Your task to perform on an android device: Open Yahoo.com Image 0: 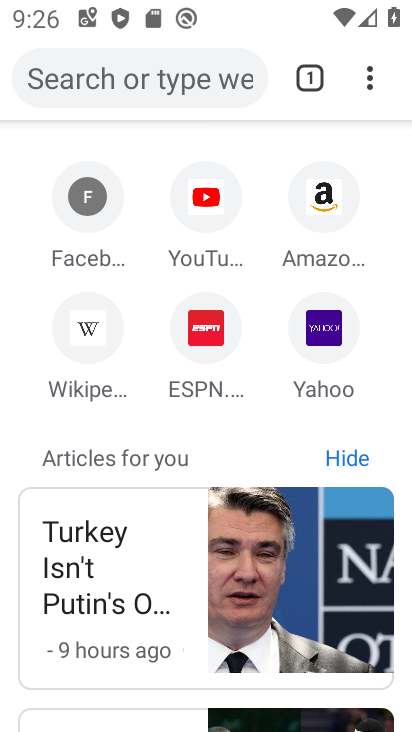
Step 0: press back button
Your task to perform on an android device: Open Yahoo.com Image 1: 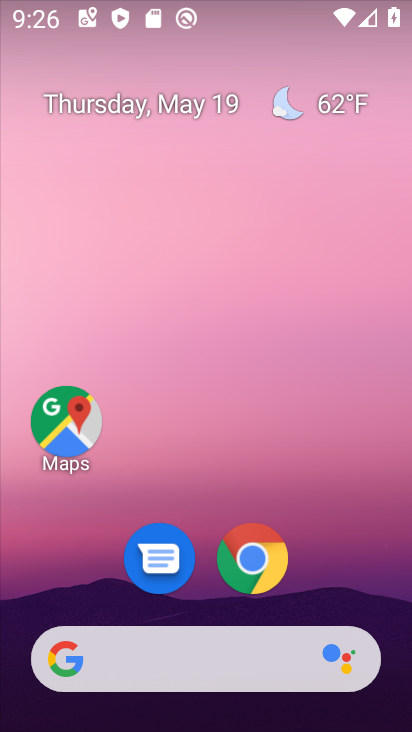
Step 1: click (250, 556)
Your task to perform on an android device: Open Yahoo.com Image 2: 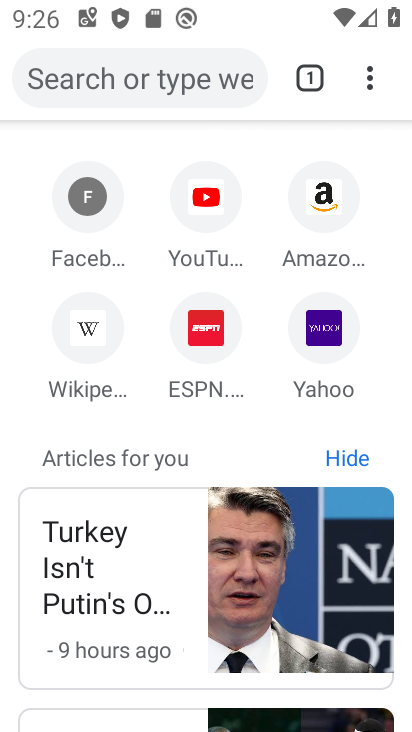
Step 2: click (151, 84)
Your task to perform on an android device: Open Yahoo.com Image 3: 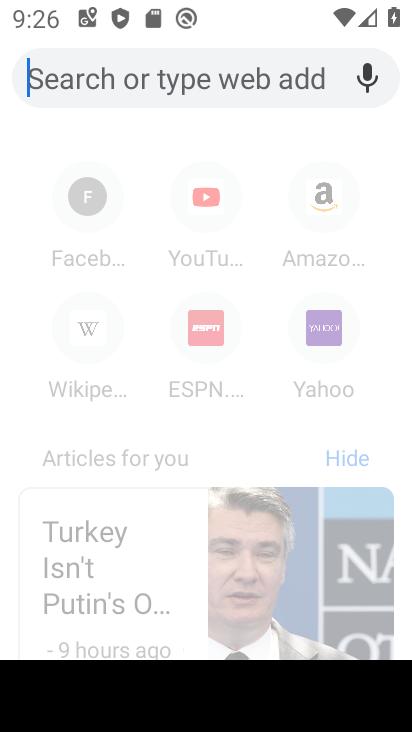
Step 3: type "Yahoo.com"
Your task to perform on an android device: Open Yahoo.com Image 4: 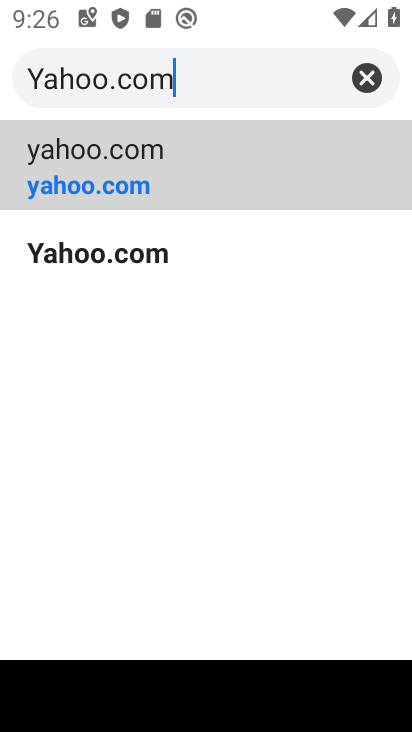
Step 4: type ""
Your task to perform on an android device: Open Yahoo.com Image 5: 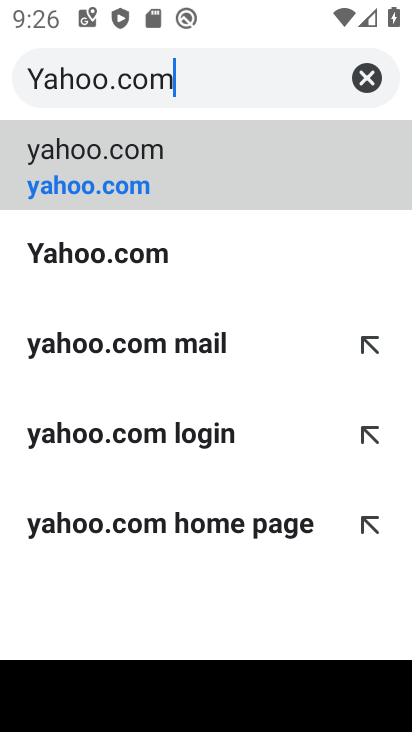
Step 5: click (150, 256)
Your task to perform on an android device: Open Yahoo.com Image 6: 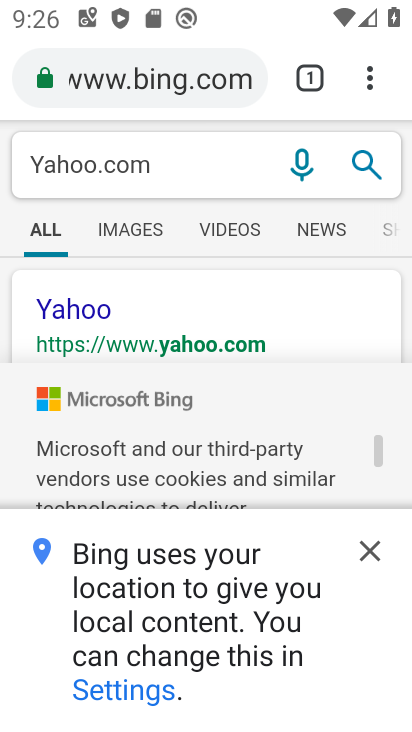
Step 6: click (367, 542)
Your task to perform on an android device: Open Yahoo.com Image 7: 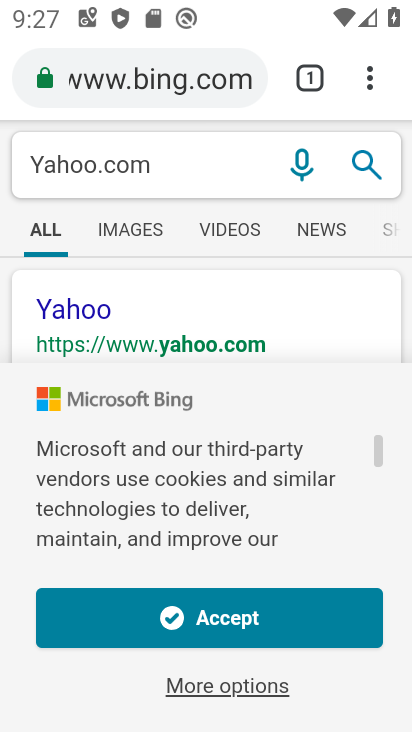
Step 7: click (120, 332)
Your task to perform on an android device: Open Yahoo.com Image 8: 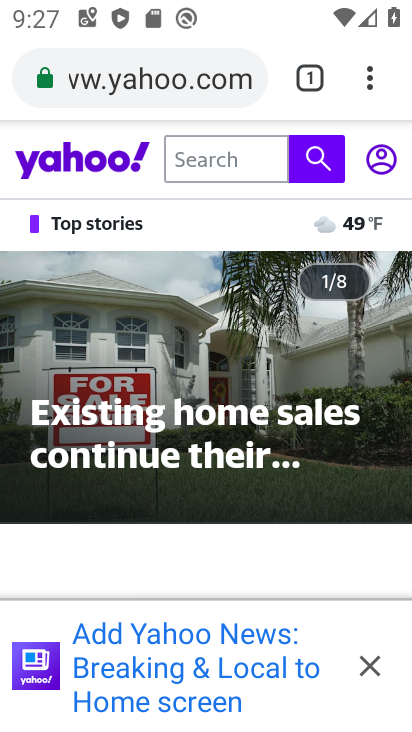
Step 8: task complete